Your task to perform on an android device: Go to accessibility settings Image 0: 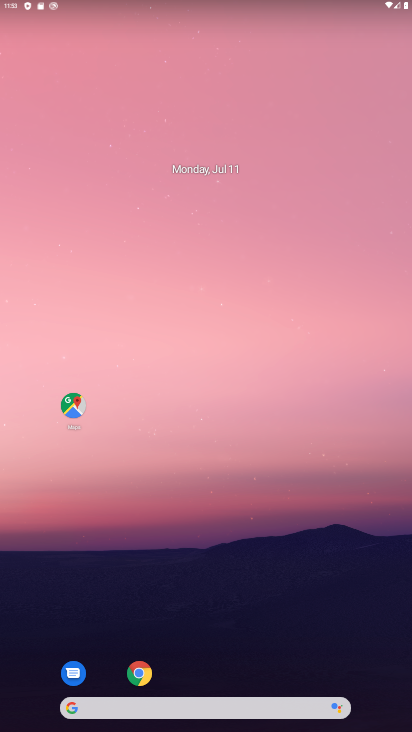
Step 0: drag from (241, 627) to (195, 115)
Your task to perform on an android device: Go to accessibility settings Image 1: 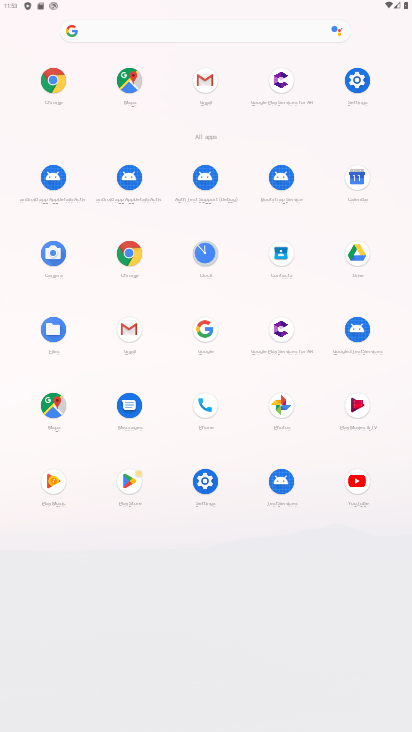
Step 1: click (362, 80)
Your task to perform on an android device: Go to accessibility settings Image 2: 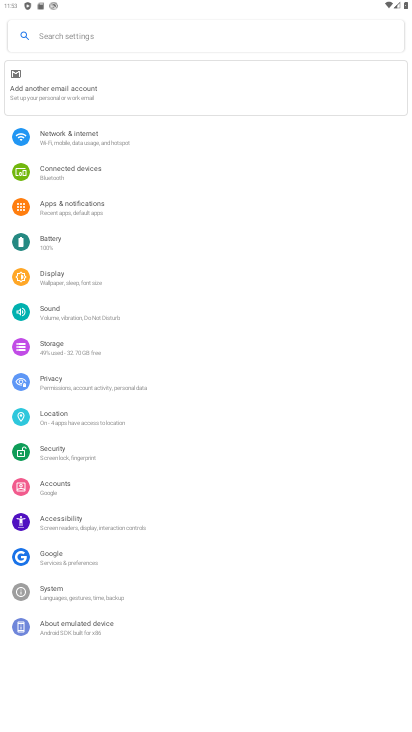
Step 2: click (126, 525)
Your task to perform on an android device: Go to accessibility settings Image 3: 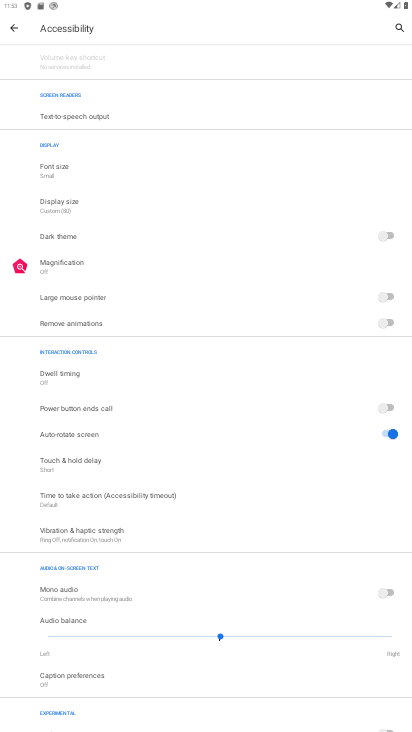
Step 3: task complete